Your task to perform on an android device: Open the stopwatch Image 0: 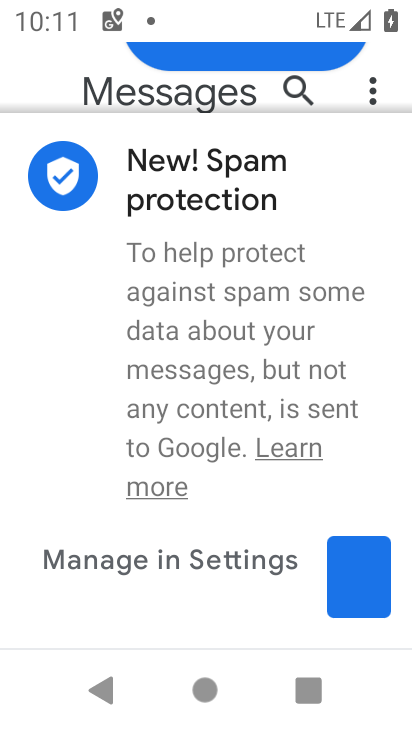
Step 0: press home button
Your task to perform on an android device: Open the stopwatch Image 1: 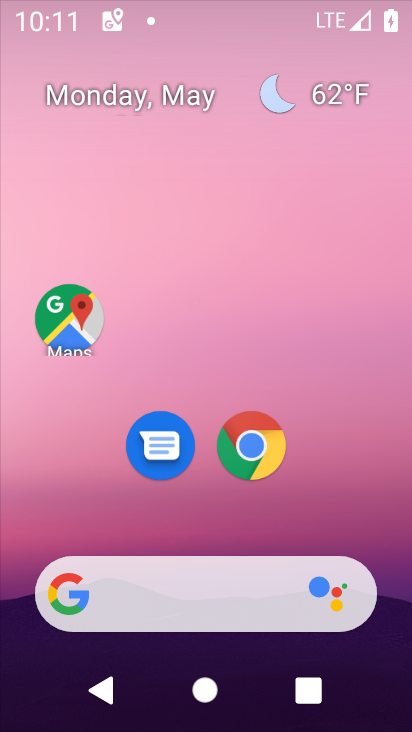
Step 1: drag from (385, 640) to (270, 93)
Your task to perform on an android device: Open the stopwatch Image 2: 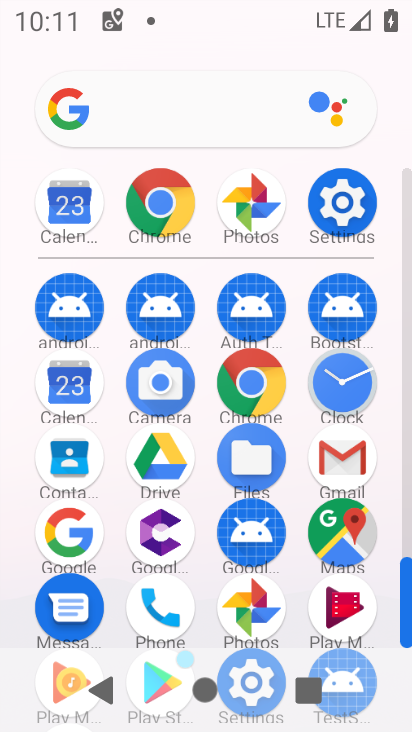
Step 2: click (339, 402)
Your task to perform on an android device: Open the stopwatch Image 3: 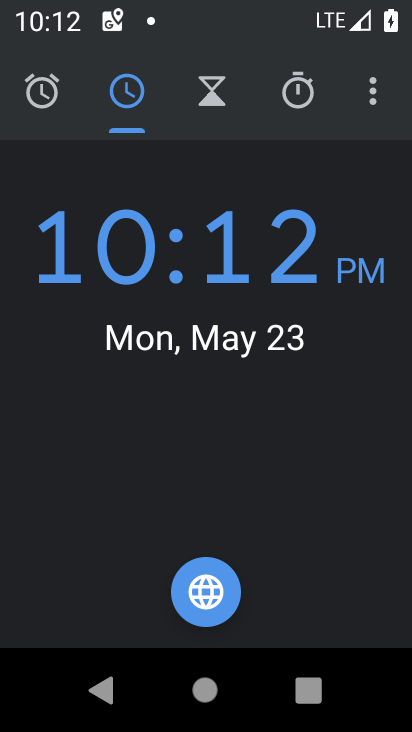
Step 3: click (297, 99)
Your task to perform on an android device: Open the stopwatch Image 4: 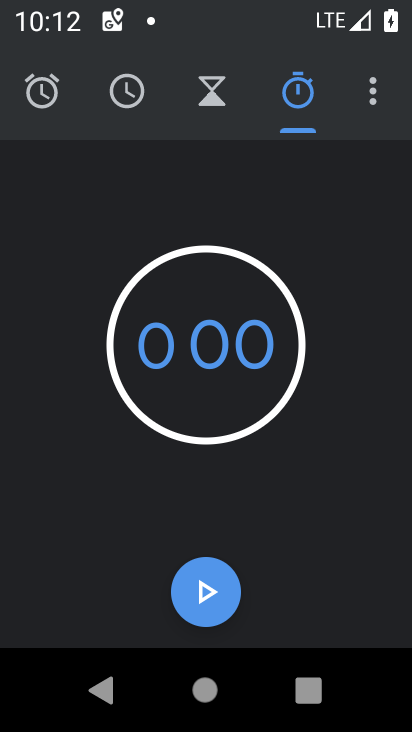
Step 4: task complete